Your task to perform on an android device: Go to sound settings Image 0: 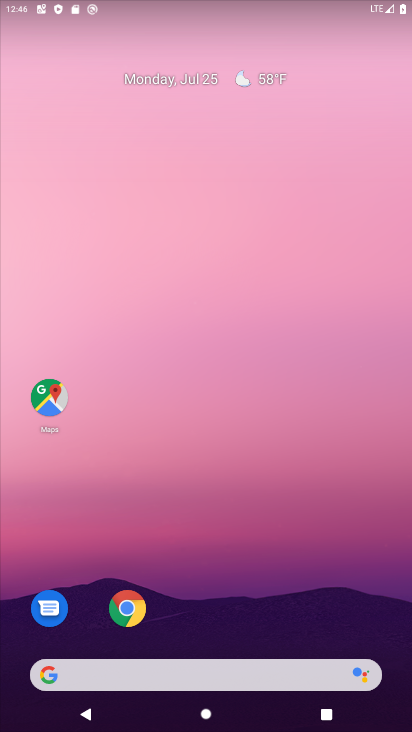
Step 0: drag from (162, 676) to (221, 115)
Your task to perform on an android device: Go to sound settings Image 1: 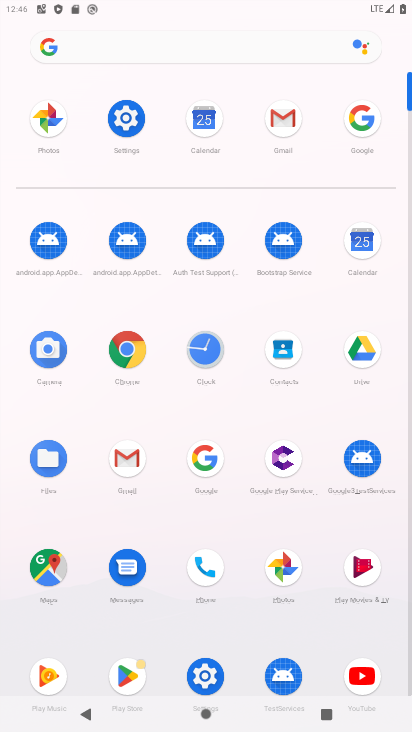
Step 1: click (127, 116)
Your task to perform on an android device: Go to sound settings Image 2: 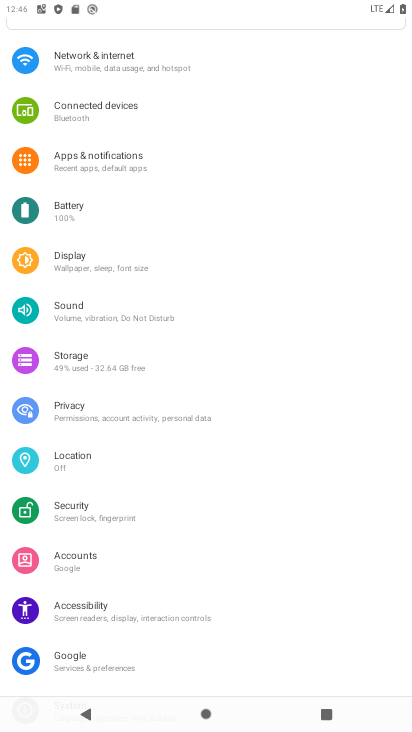
Step 2: click (70, 309)
Your task to perform on an android device: Go to sound settings Image 3: 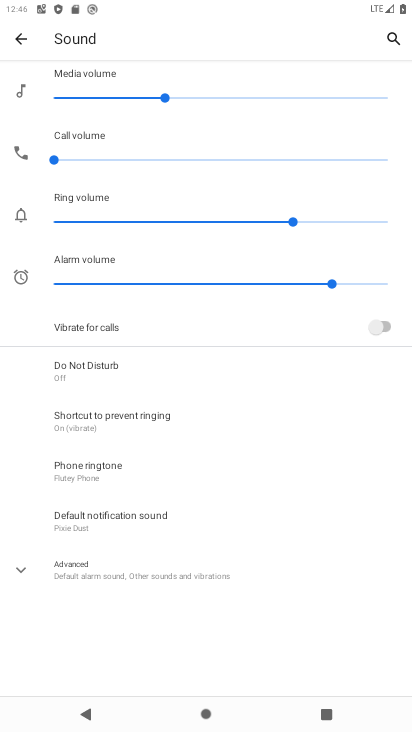
Step 3: task complete